Your task to perform on an android device: turn on bluetooth scan Image 0: 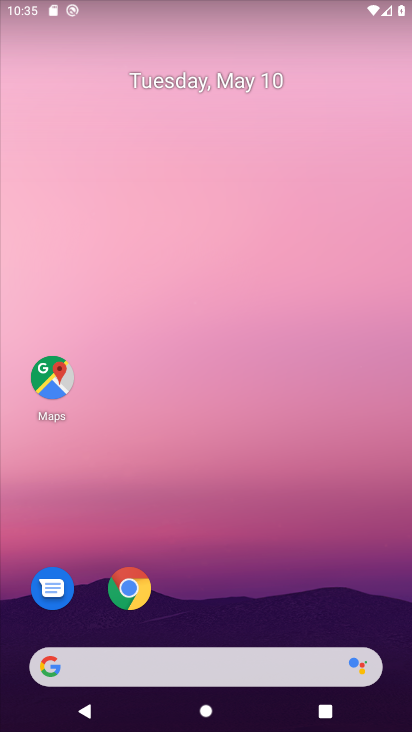
Step 0: drag from (216, 609) to (214, 190)
Your task to perform on an android device: turn on bluetooth scan Image 1: 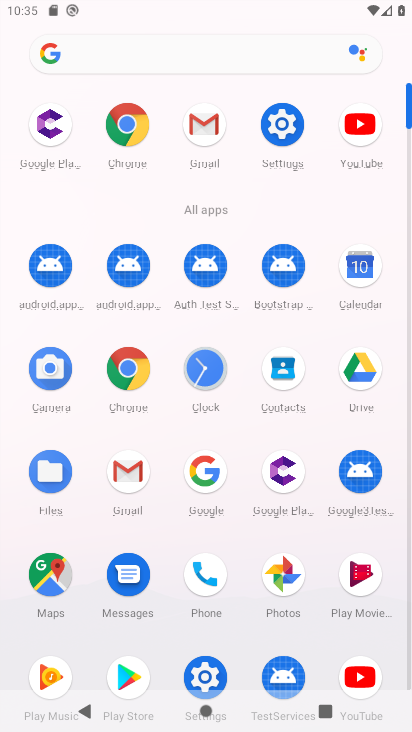
Step 1: click (304, 140)
Your task to perform on an android device: turn on bluetooth scan Image 2: 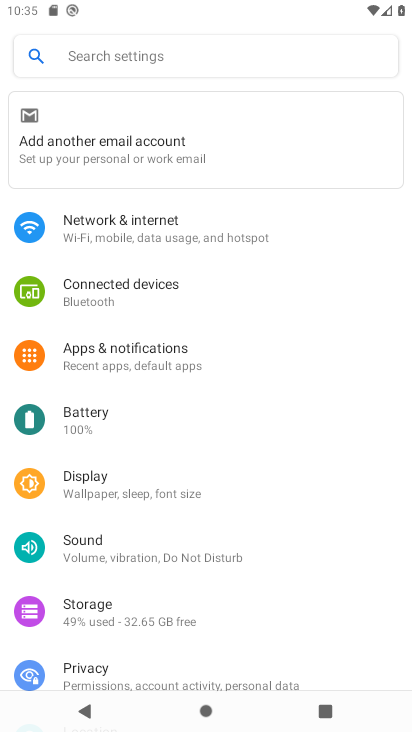
Step 2: drag from (220, 605) to (203, 331)
Your task to perform on an android device: turn on bluetooth scan Image 3: 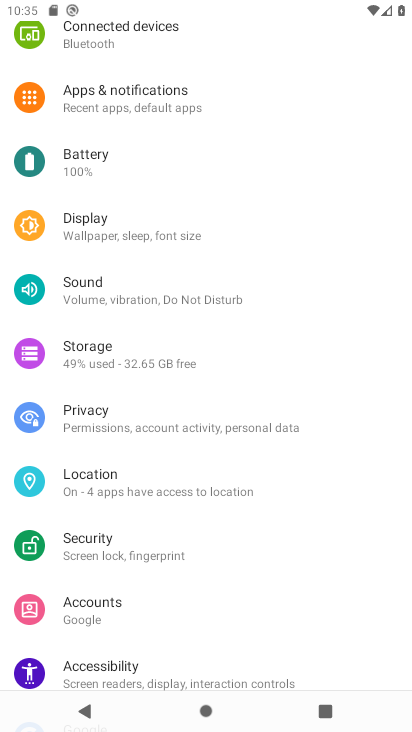
Step 3: click (212, 473)
Your task to perform on an android device: turn on bluetooth scan Image 4: 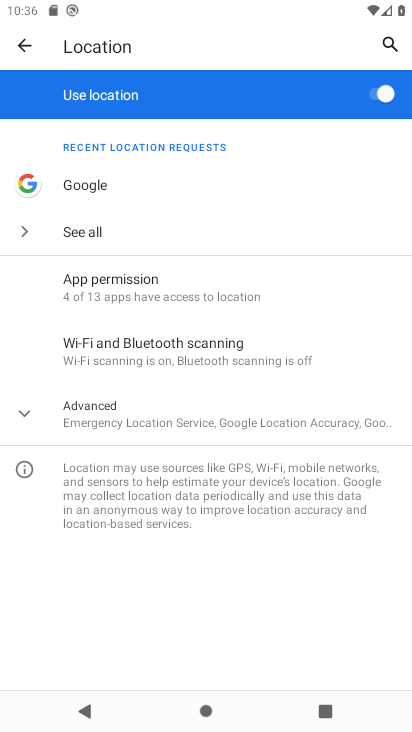
Step 4: click (191, 354)
Your task to perform on an android device: turn on bluetooth scan Image 5: 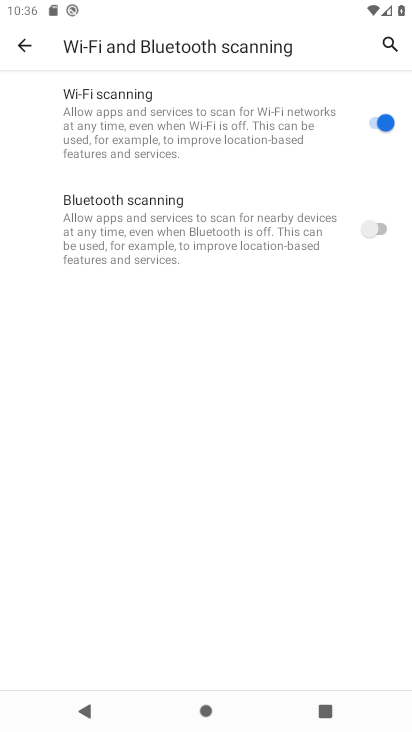
Step 5: click (378, 222)
Your task to perform on an android device: turn on bluetooth scan Image 6: 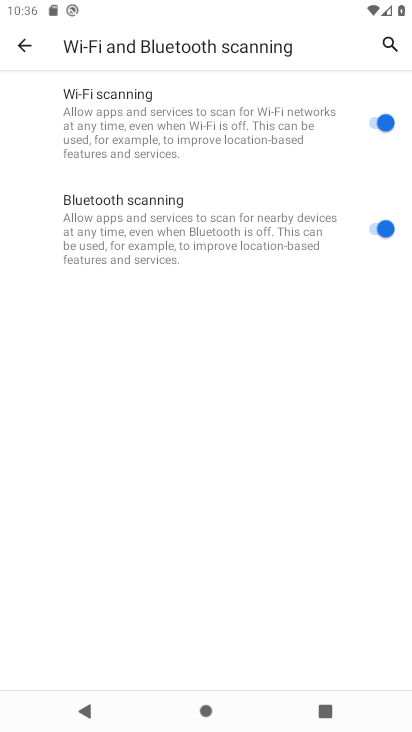
Step 6: task complete